Your task to perform on an android device: turn on showing notifications on the lock screen Image 0: 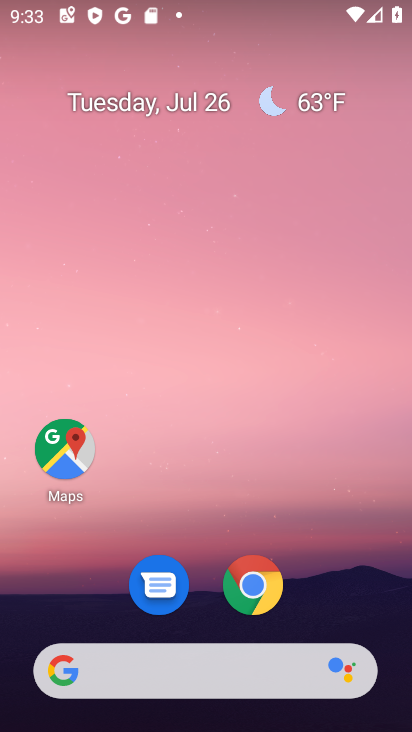
Step 0: drag from (333, 580) to (322, 58)
Your task to perform on an android device: turn on showing notifications on the lock screen Image 1: 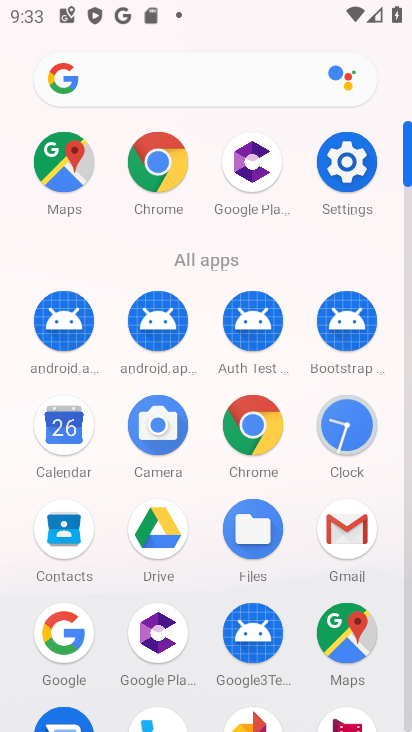
Step 1: click (351, 164)
Your task to perform on an android device: turn on showing notifications on the lock screen Image 2: 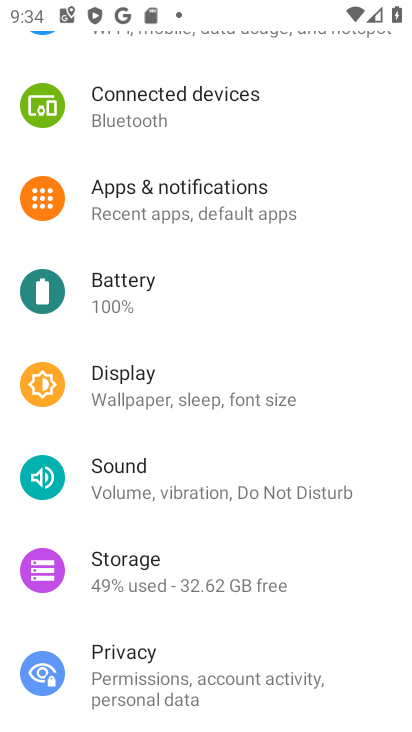
Step 2: click (234, 192)
Your task to perform on an android device: turn on showing notifications on the lock screen Image 3: 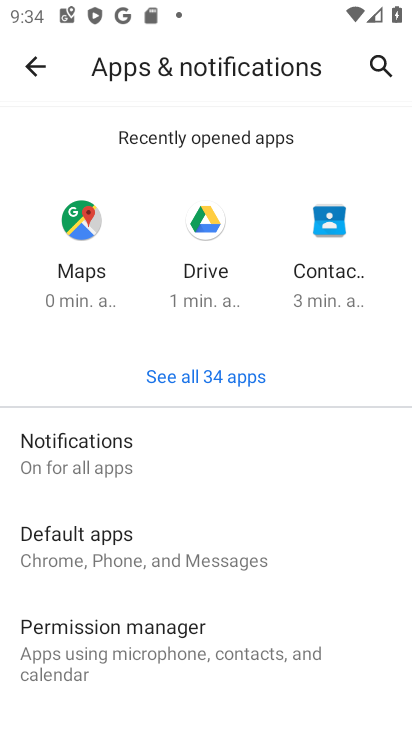
Step 3: drag from (143, 475) to (182, 249)
Your task to perform on an android device: turn on showing notifications on the lock screen Image 4: 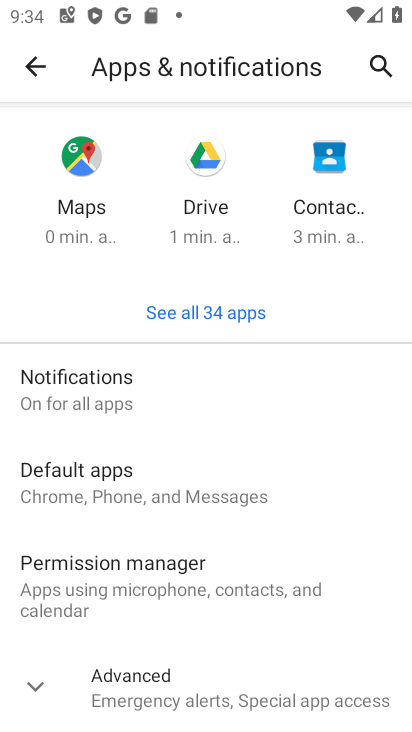
Step 4: drag from (180, 391) to (214, 622)
Your task to perform on an android device: turn on showing notifications on the lock screen Image 5: 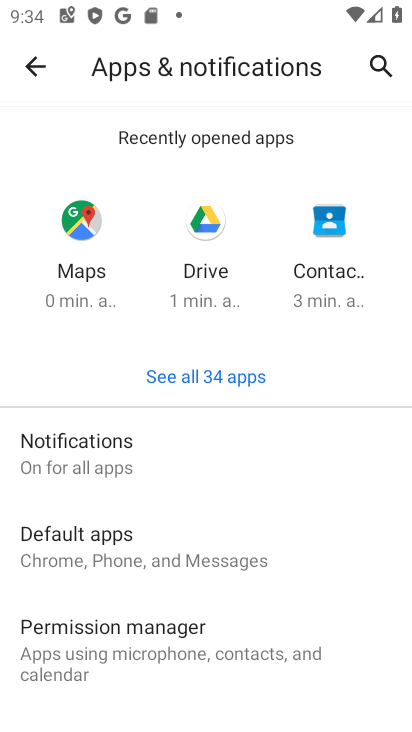
Step 5: click (93, 460)
Your task to perform on an android device: turn on showing notifications on the lock screen Image 6: 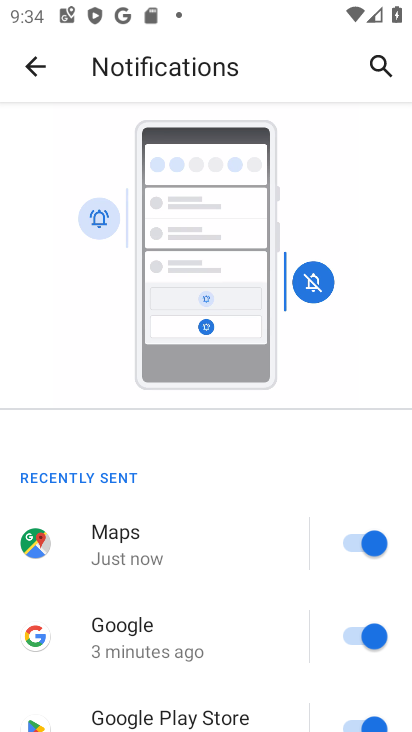
Step 6: drag from (231, 493) to (261, 187)
Your task to perform on an android device: turn on showing notifications on the lock screen Image 7: 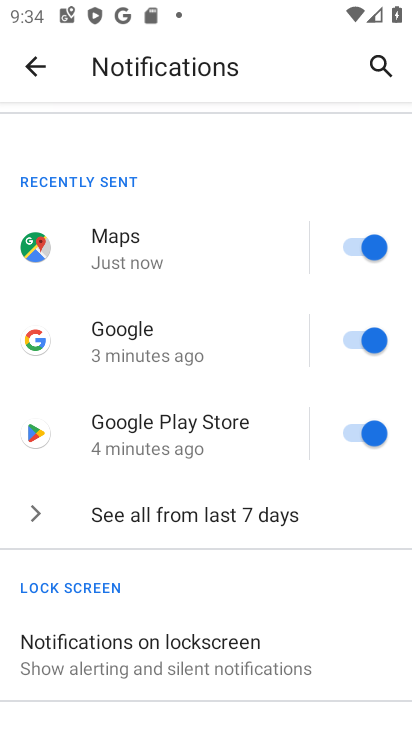
Step 7: drag from (223, 561) to (260, 319)
Your task to perform on an android device: turn on showing notifications on the lock screen Image 8: 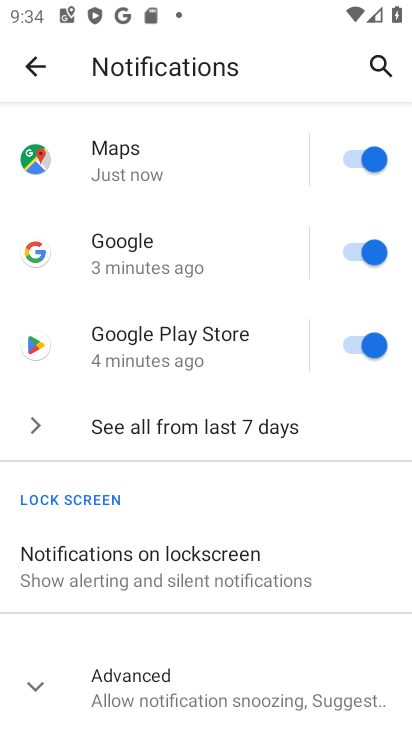
Step 8: click (227, 557)
Your task to perform on an android device: turn on showing notifications on the lock screen Image 9: 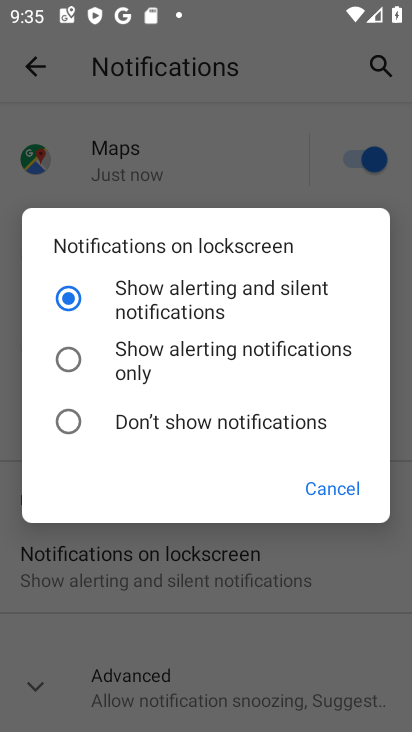
Step 9: click (285, 281)
Your task to perform on an android device: turn on showing notifications on the lock screen Image 10: 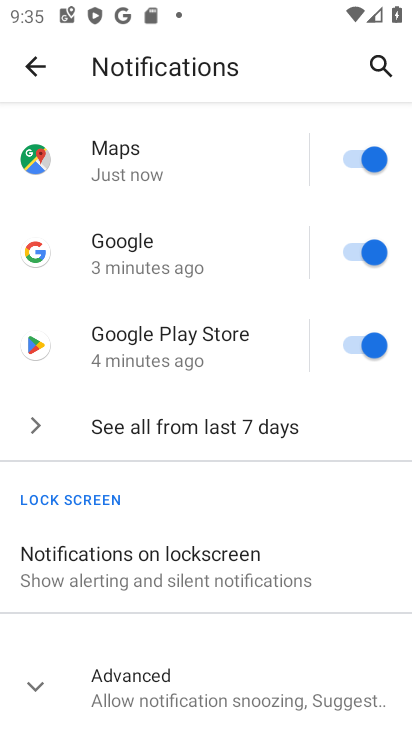
Step 10: task complete